Your task to perform on an android device: turn notification dots off Image 0: 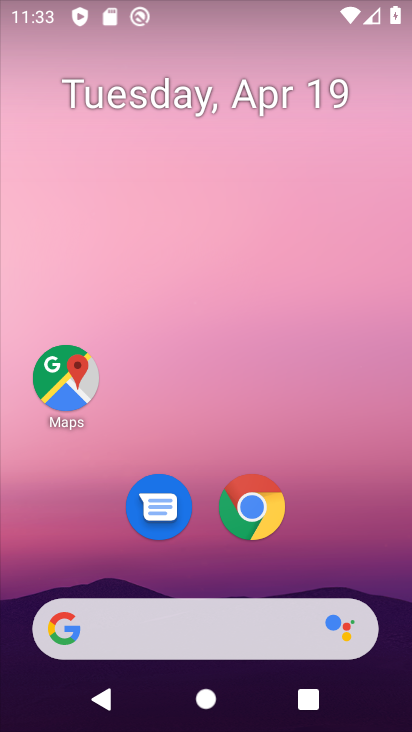
Step 0: drag from (389, 551) to (394, 145)
Your task to perform on an android device: turn notification dots off Image 1: 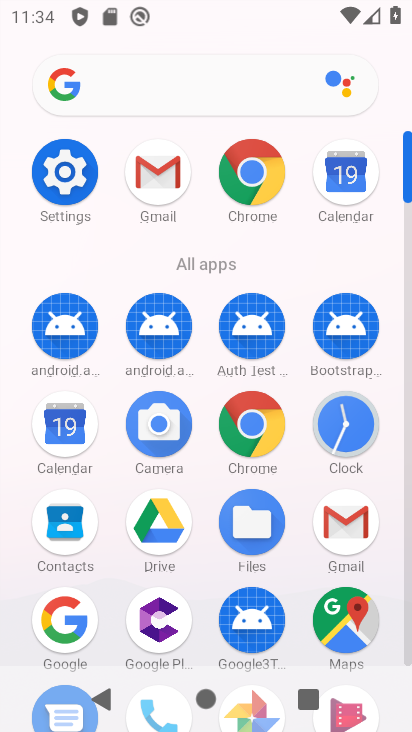
Step 1: click (71, 170)
Your task to perform on an android device: turn notification dots off Image 2: 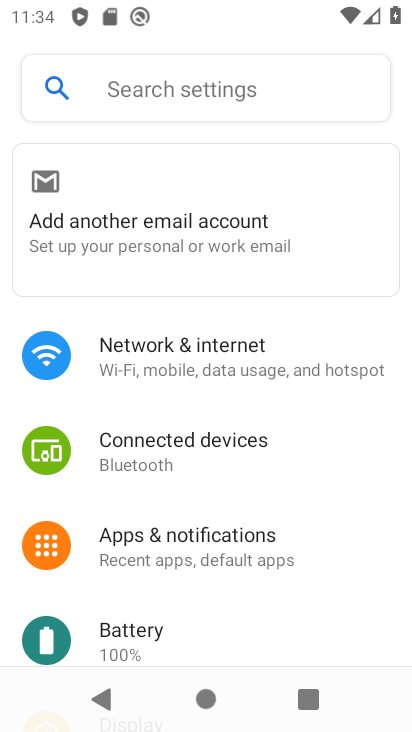
Step 2: click (189, 541)
Your task to perform on an android device: turn notification dots off Image 3: 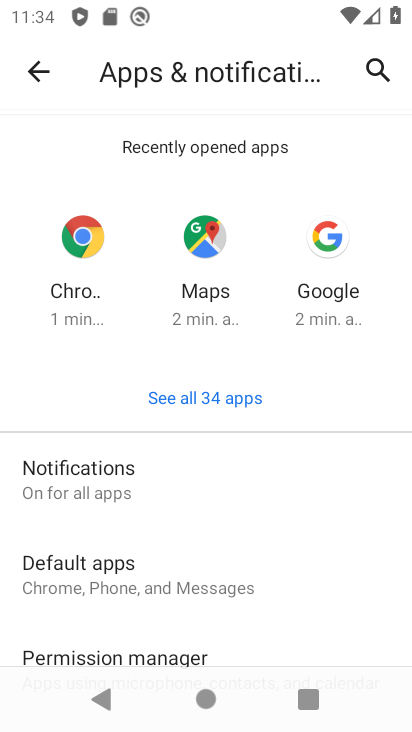
Step 3: drag from (294, 611) to (330, 238)
Your task to perform on an android device: turn notification dots off Image 4: 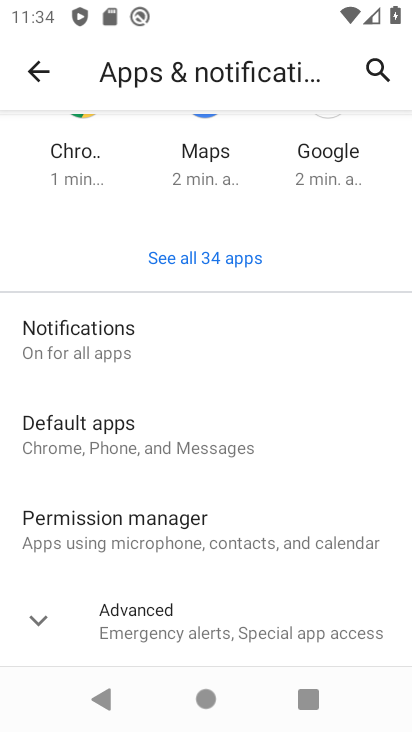
Step 4: drag from (318, 579) to (362, 286)
Your task to perform on an android device: turn notification dots off Image 5: 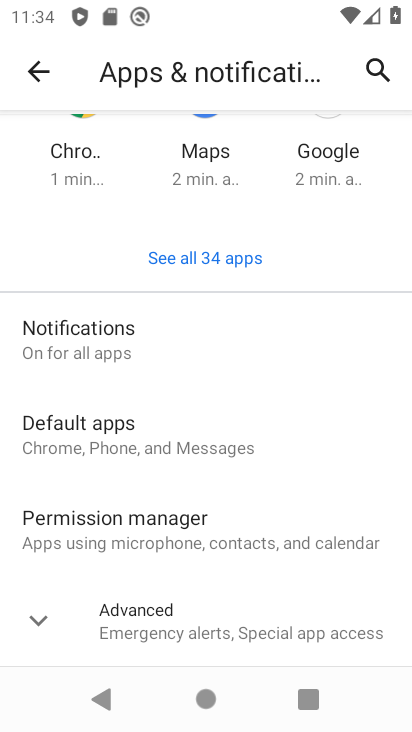
Step 5: click (289, 627)
Your task to perform on an android device: turn notification dots off Image 6: 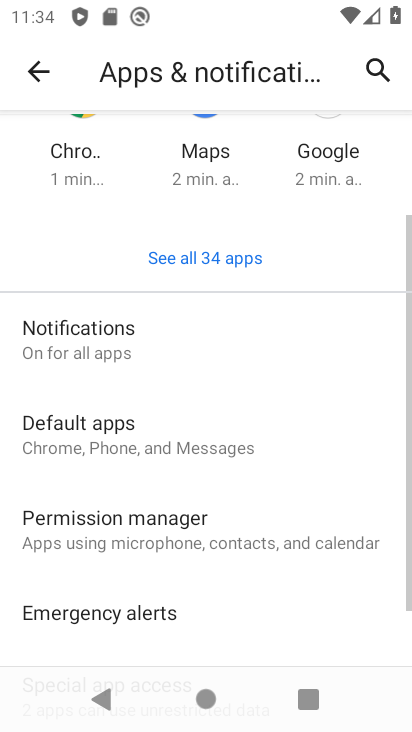
Step 6: drag from (305, 624) to (317, 363)
Your task to perform on an android device: turn notification dots off Image 7: 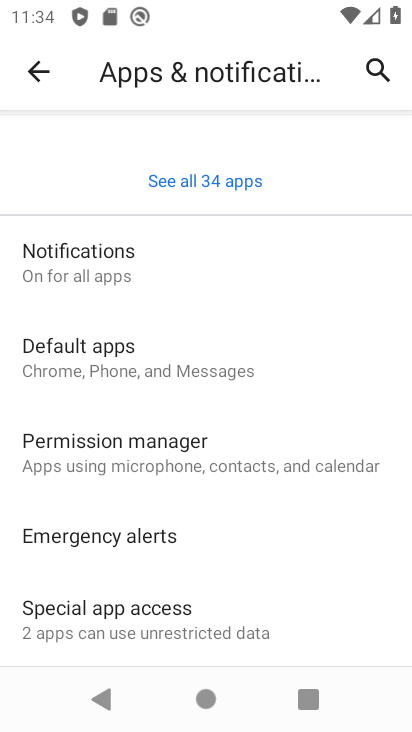
Step 7: click (75, 282)
Your task to perform on an android device: turn notification dots off Image 8: 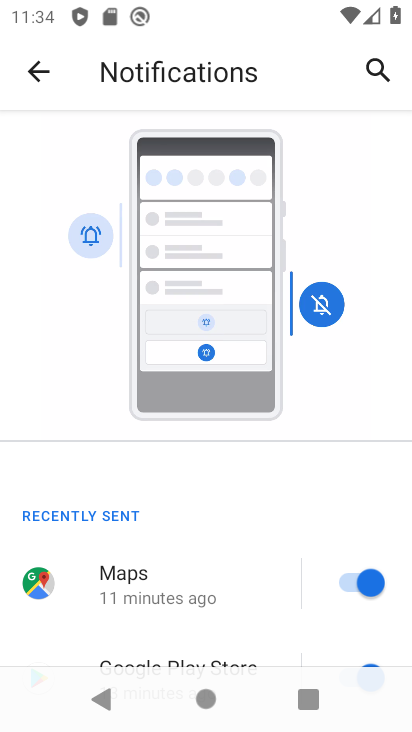
Step 8: drag from (229, 484) to (364, 187)
Your task to perform on an android device: turn notification dots off Image 9: 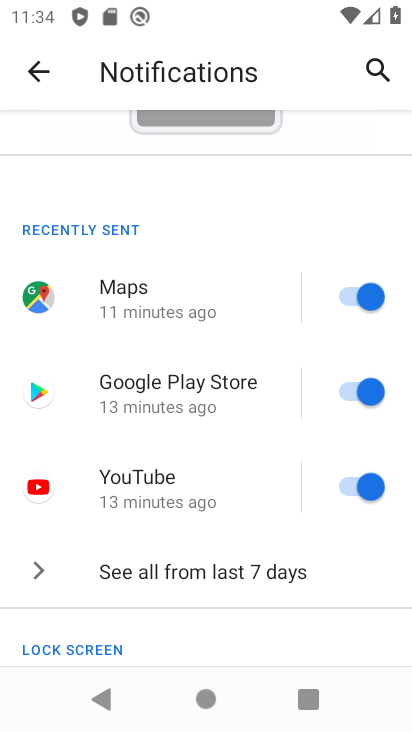
Step 9: drag from (207, 610) to (289, 266)
Your task to perform on an android device: turn notification dots off Image 10: 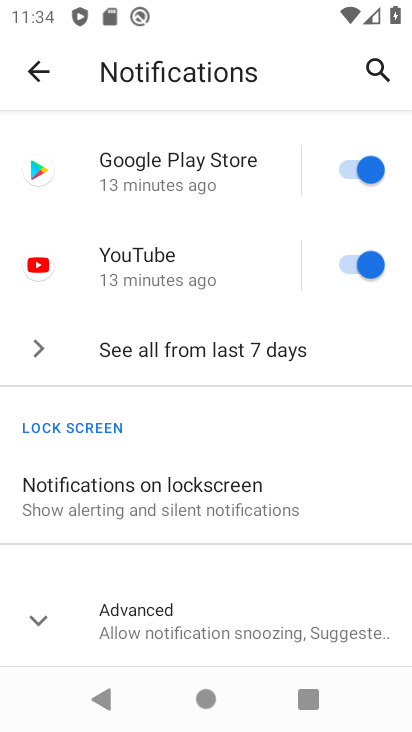
Step 10: click (244, 634)
Your task to perform on an android device: turn notification dots off Image 11: 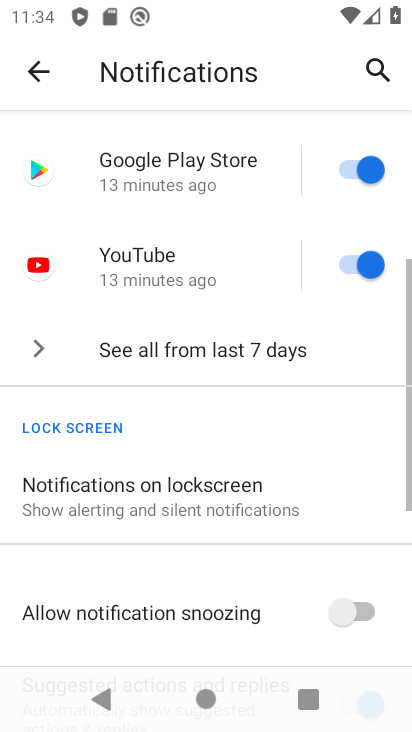
Step 11: drag from (157, 638) to (250, 260)
Your task to perform on an android device: turn notification dots off Image 12: 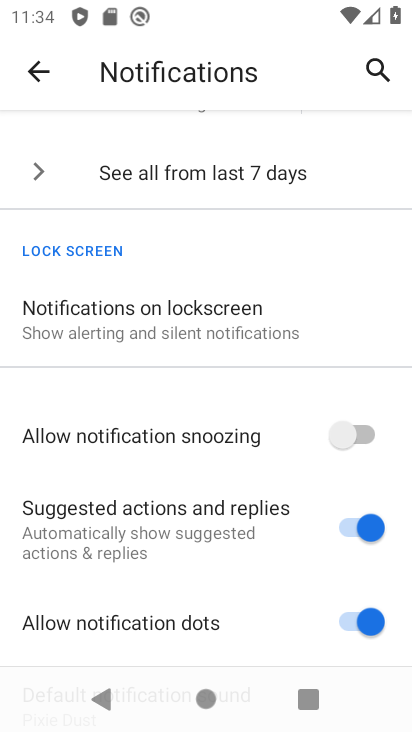
Step 12: click (343, 625)
Your task to perform on an android device: turn notification dots off Image 13: 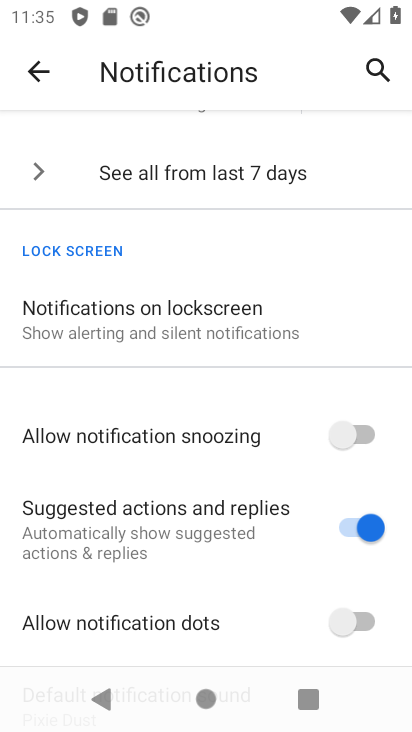
Step 13: task complete